Your task to perform on an android device: toggle notifications settings in the gmail app Image 0: 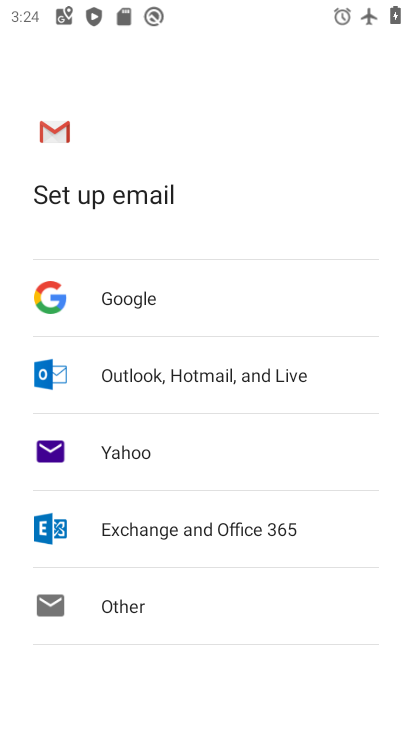
Step 0: press home button
Your task to perform on an android device: toggle notifications settings in the gmail app Image 1: 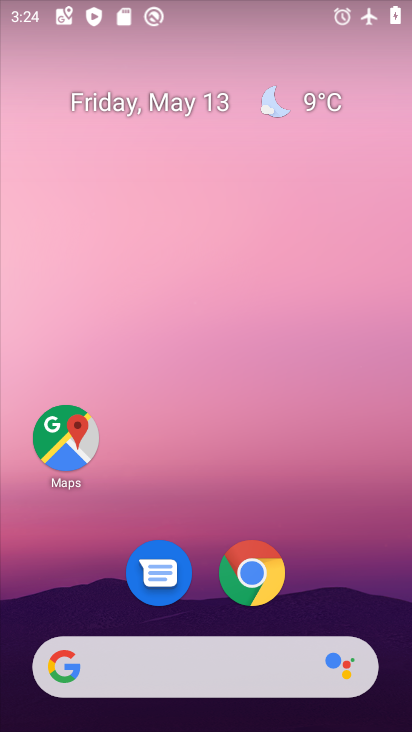
Step 1: drag from (319, 600) to (287, 127)
Your task to perform on an android device: toggle notifications settings in the gmail app Image 2: 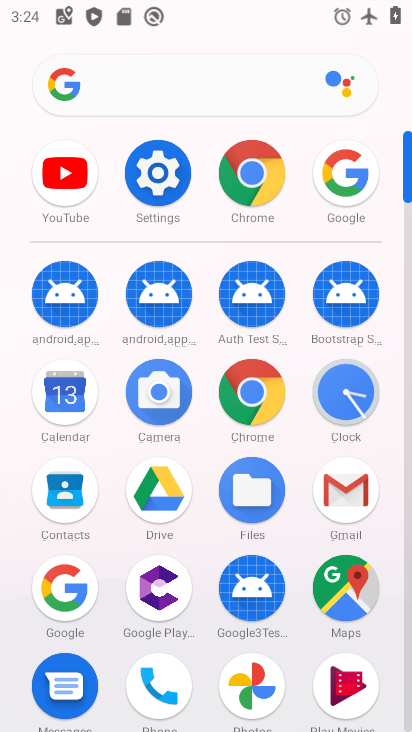
Step 2: click (344, 490)
Your task to perform on an android device: toggle notifications settings in the gmail app Image 3: 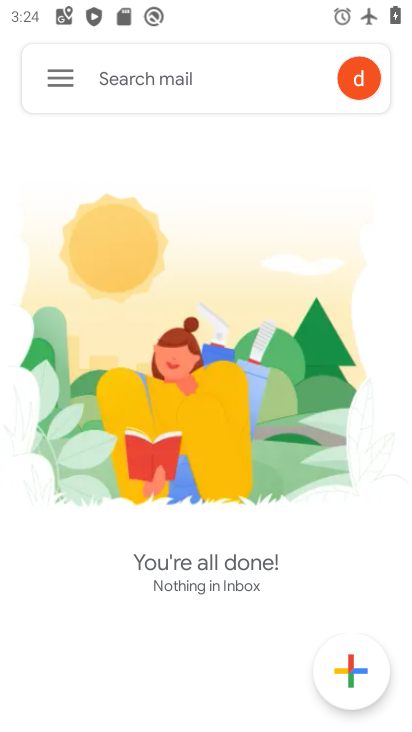
Step 3: click (57, 81)
Your task to perform on an android device: toggle notifications settings in the gmail app Image 4: 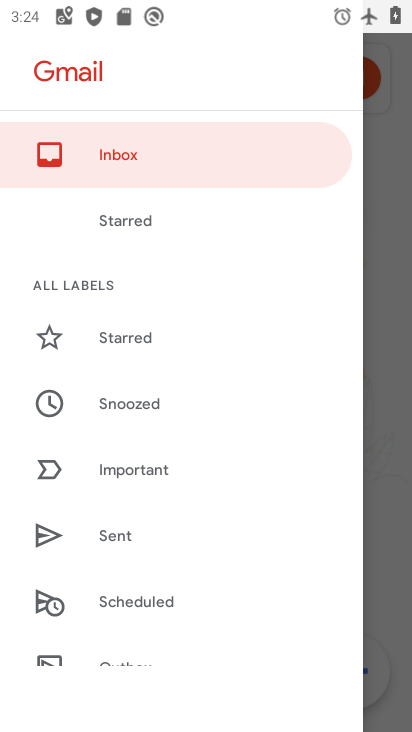
Step 4: drag from (113, 449) to (149, 380)
Your task to perform on an android device: toggle notifications settings in the gmail app Image 5: 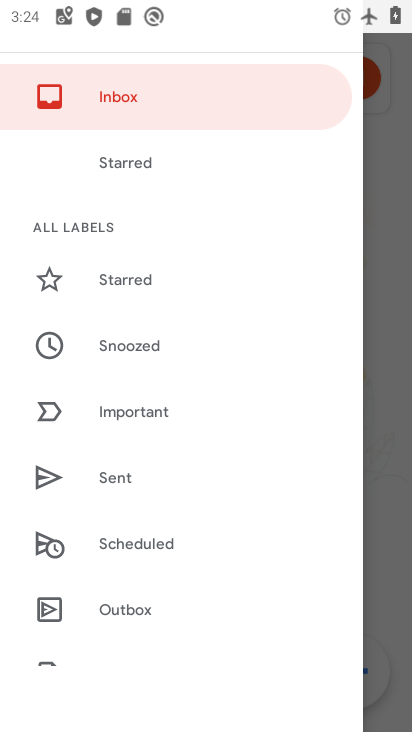
Step 5: drag from (73, 543) to (131, 460)
Your task to perform on an android device: toggle notifications settings in the gmail app Image 6: 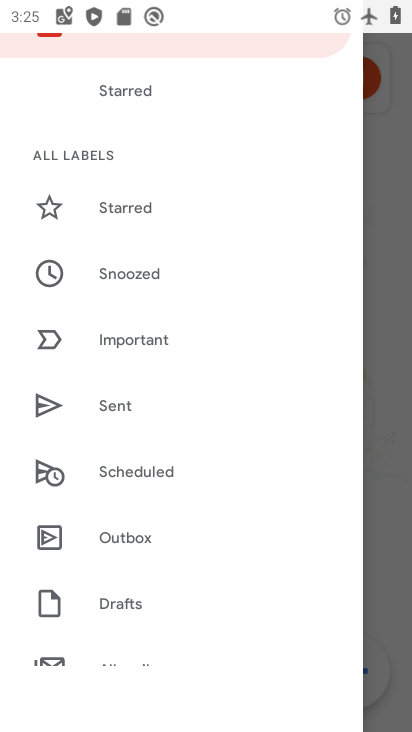
Step 6: drag from (128, 532) to (174, 393)
Your task to perform on an android device: toggle notifications settings in the gmail app Image 7: 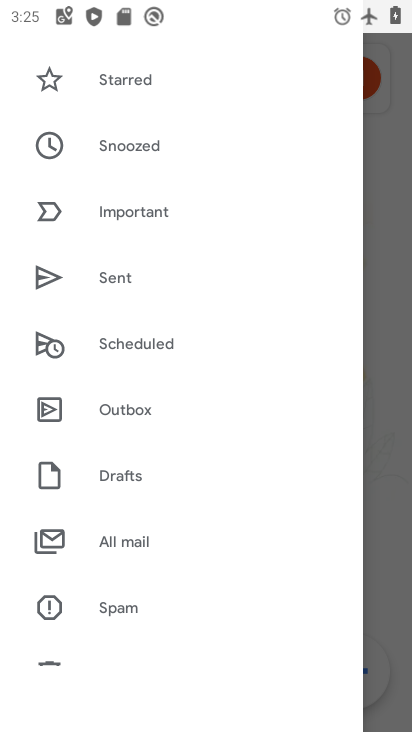
Step 7: drag from (108, 566) to (182, 448)
Your task to perform on an android device: toggle notifications settings in the gmail app Image 8: 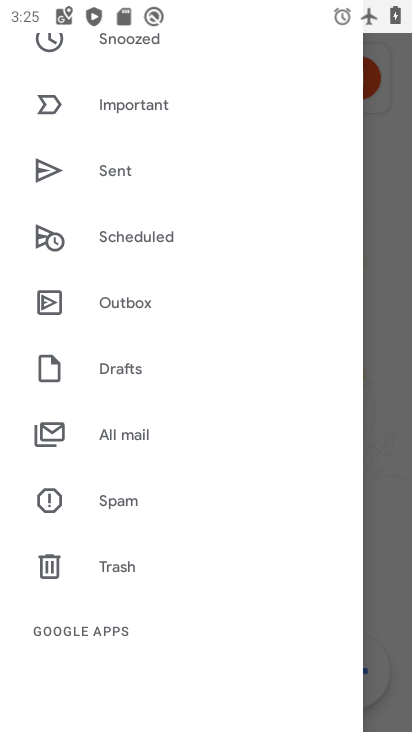
Step 8: drag from (90, 615) to (176, 485)
Your task to perform on an android device: toggle notifications settings in the gmail app Image 9: 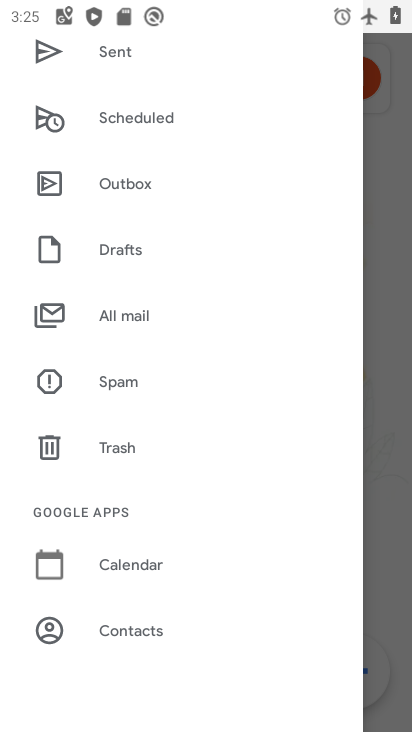
Step 9: drag from (94, 591) to (189, 470)
Your task to perform on an android device: toggle notifications settings in the gmail app Image 10: 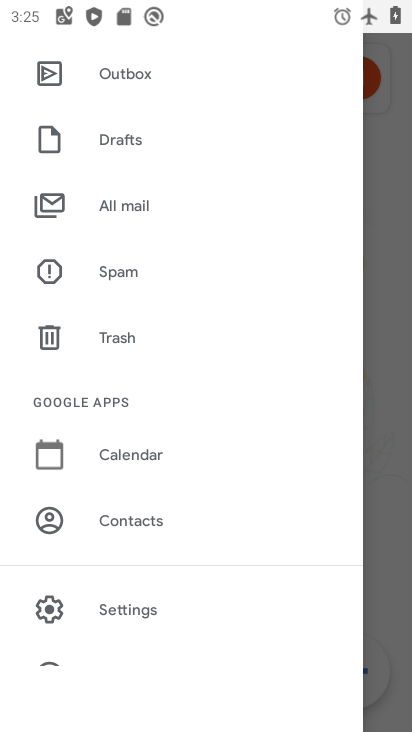
Step 10: drag from (103, 582) to (184, 489)
Your task to perform on an android device: toggle notifications settings in the gmail app Image 11: 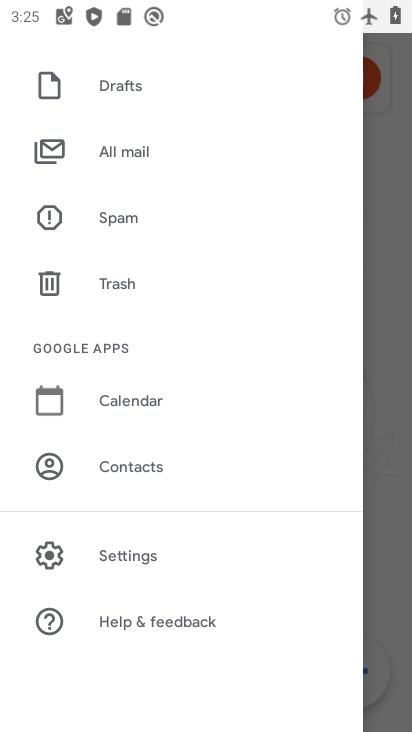
Step 11: click (143, 556)
Your task to perform on an android device: toggle notifications settings in the gmail app Image 12: 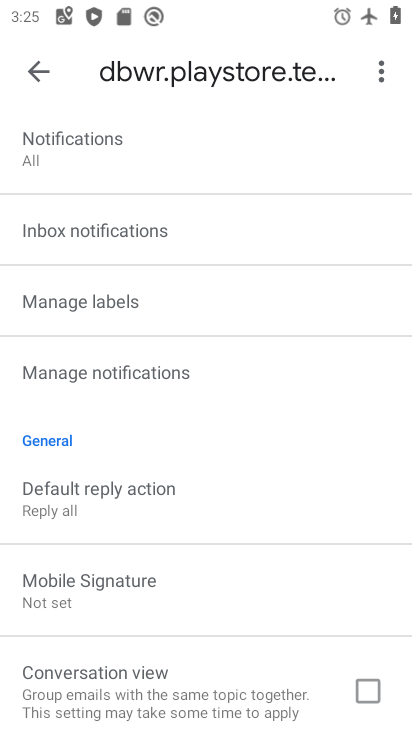
Step 12: drag from (162, 528) to (236, 435)
Your task to perform on an android device: toggle notifications settings in the gmail app Image 13: 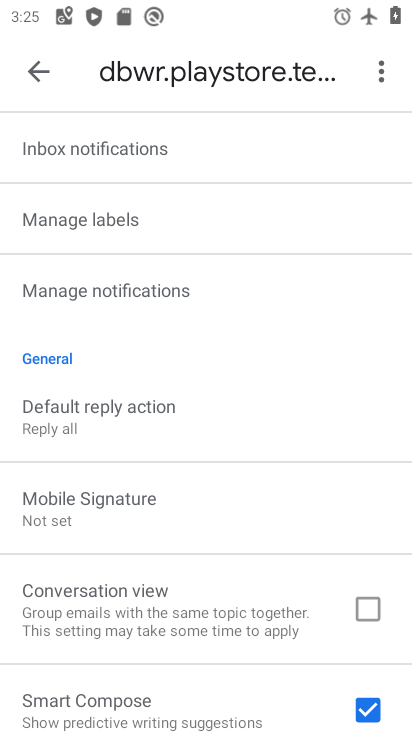
Step 13: click (162, 286)
Your task to perform on an android device: toggle notifications settings in the gmail app Image 14: 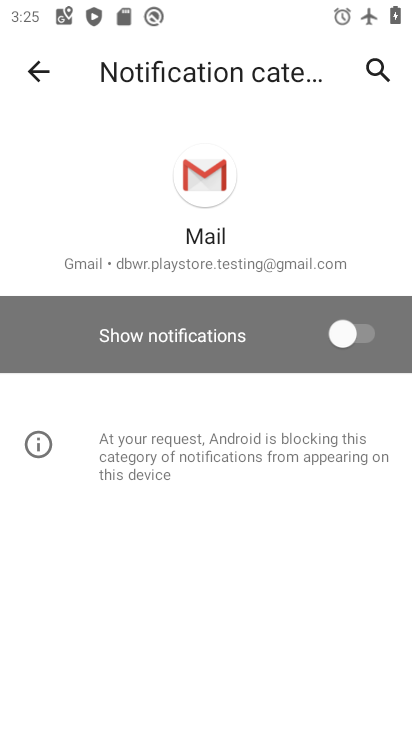
Step 14: click (338, 341)
Your task to perform on an android device: toggle notifications settings in the gmail app Image 15: 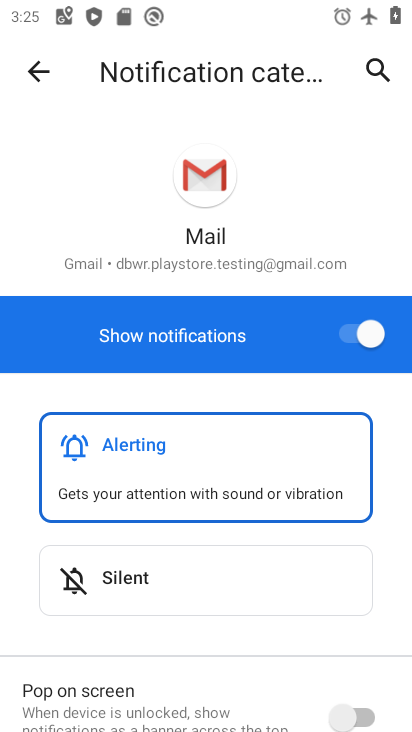
Step 15: task complete